Your task to perform on an android device: choose inbox layout in the gmail app Image 0: 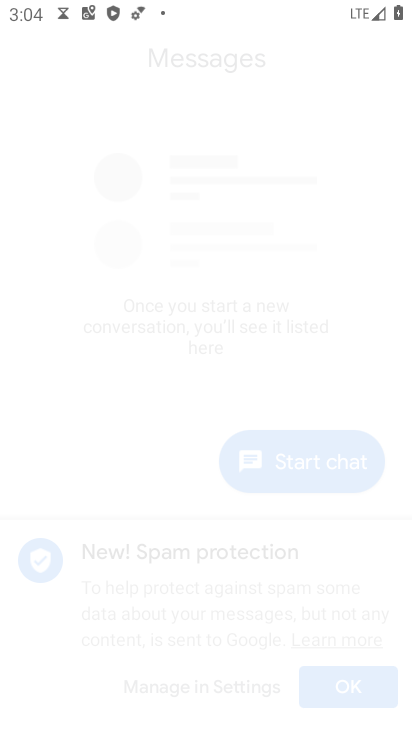
Step 0: press home button
Your task to perform on an android device: choose inbox layout in the gmail app Image 1: 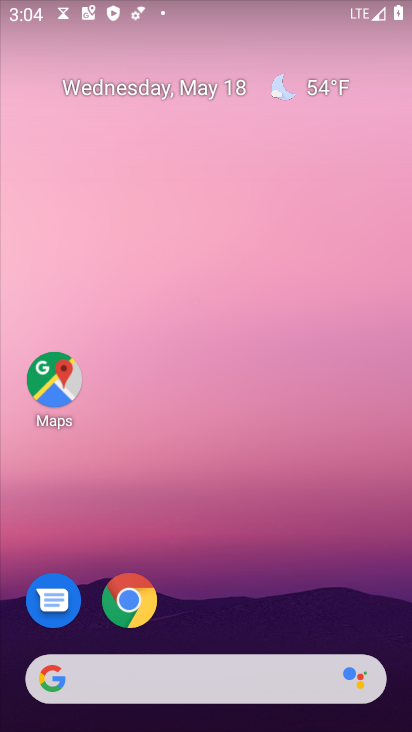
Step 1: drag from (165, 676) to (295, 81)
Your task to perform on an android device: choose inbox layout in the gmail app Image 2: 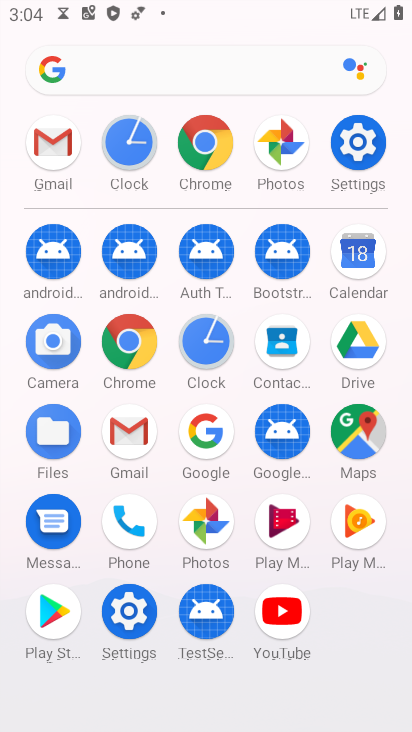
Step 2: click (40, 155)
Your task to perform on an android device: choose inbox layout in the gmail app Image 3: 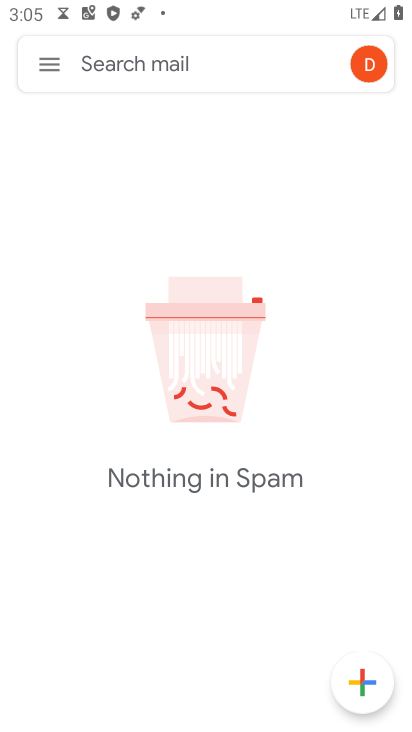
Step 3: click (50, 63)
Your task to perform on an android device: choose inbox layout in the gmail app Image 4: 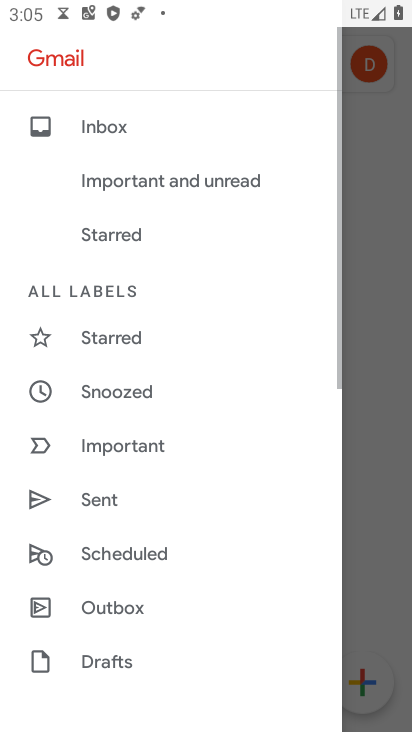
Step 4: drag from (142, 647) to (277, 72)
Your task to perform on an android device: choose inbox layout in the gmail app Image 5: 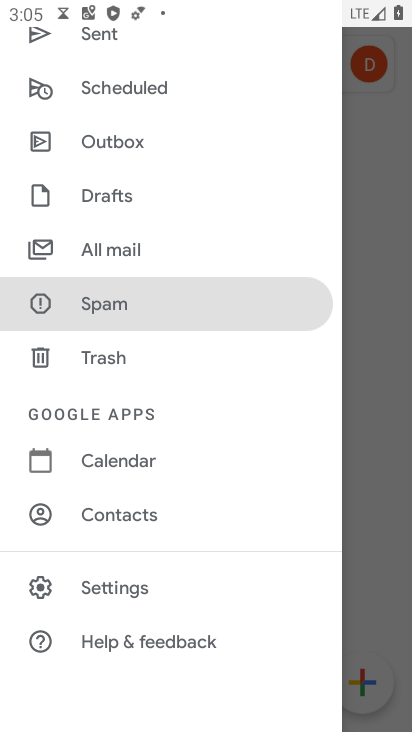
Step 5: click (118, 582)
Your task to perform on an android device: choose inbox layout in the gmail app Image 6: 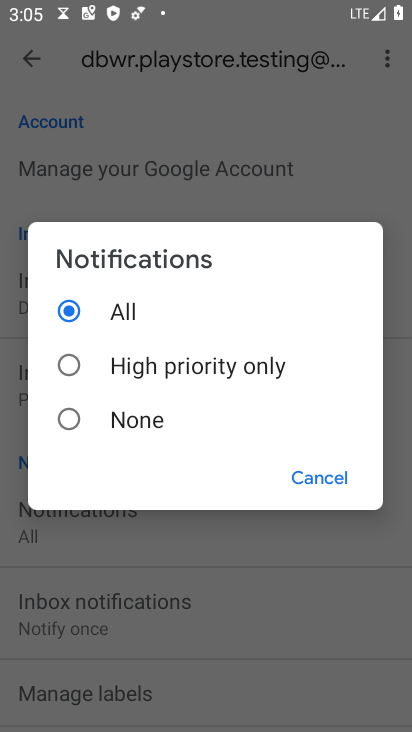
Step 6: click (300, 484)
Your task to perform on an android device: choose inbox layout in the gmail app Image 7: 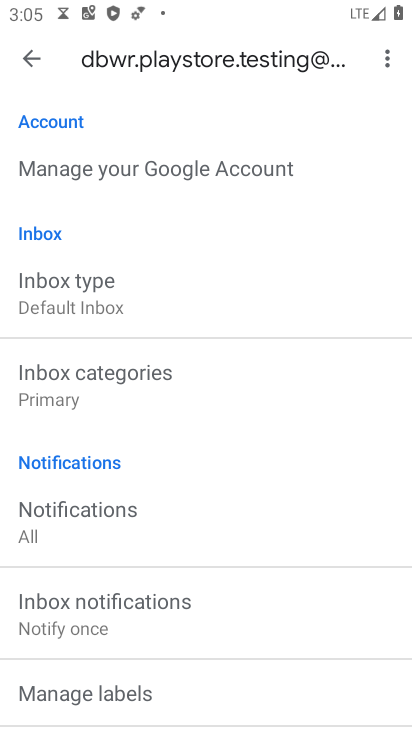
Step 7: click (78, 288)
Your task to perform on an android device: choose inbox layout in the gmail app Image 8: 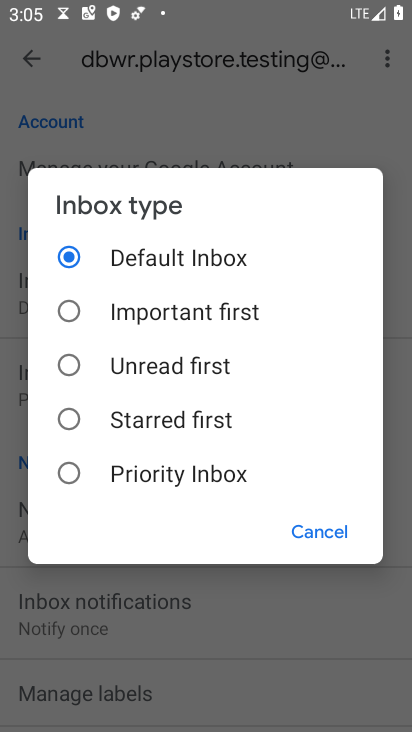
Step 8: click (67, 366)
Your task to perform on an android device: choose inbox layout in the gmail app Image 9: 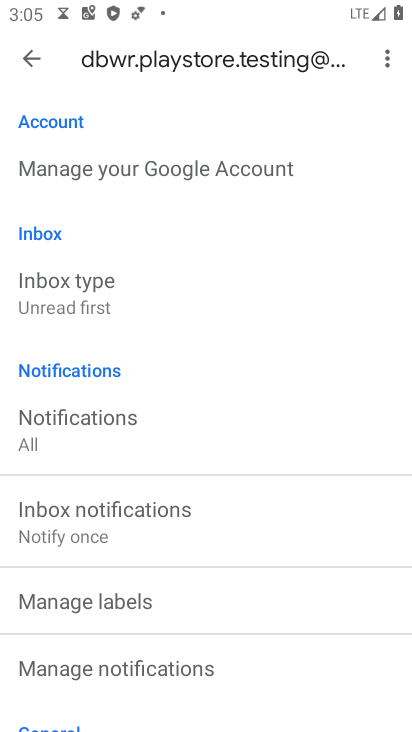
Step 9: task complete